Your task to perform on an android device: Go to network settings Image 0: 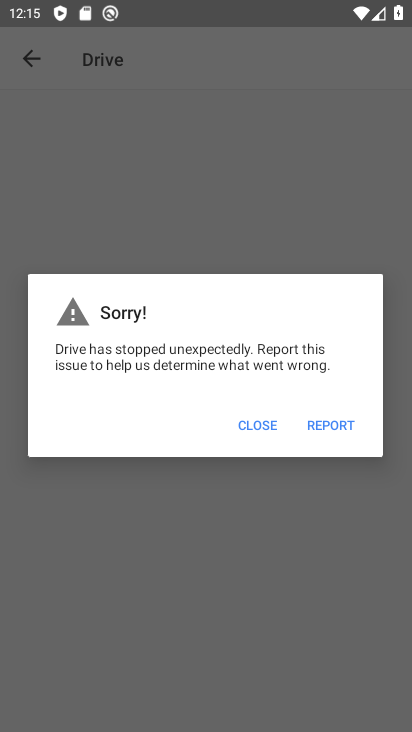
Step 0: press home button
Your task to perform on an android device: Go to network settings Image 1: 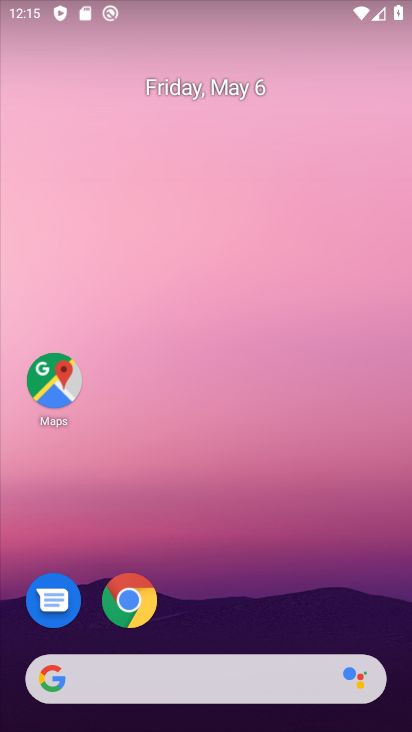
Step 1: drag from (302, 629) to (302, 67)
Your task to perform on an android device: Go to network settings Image 2: 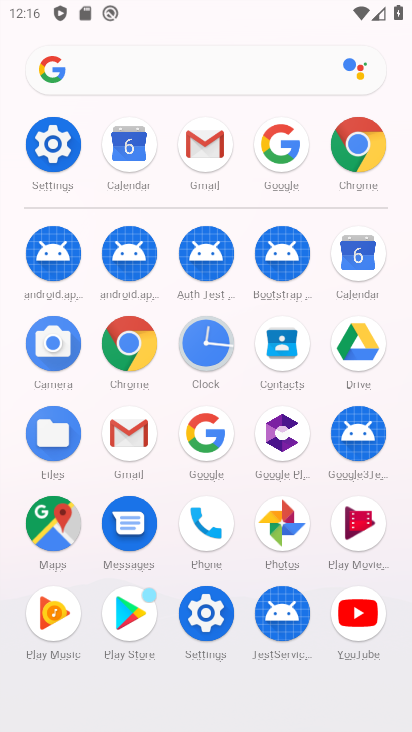
Step 2: click (216, 600)
Your task to perform on an android device: Go to network settings Image 3: 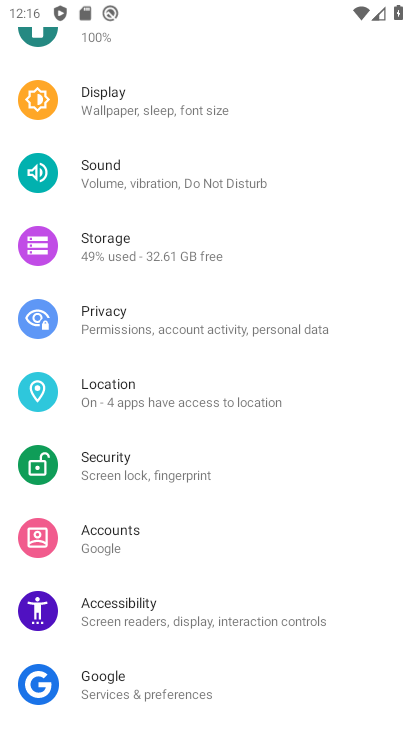
Step 3: drag from (188, 151) to (196, 530)
Your task to perform on an android device: Go to network settings Image 4: 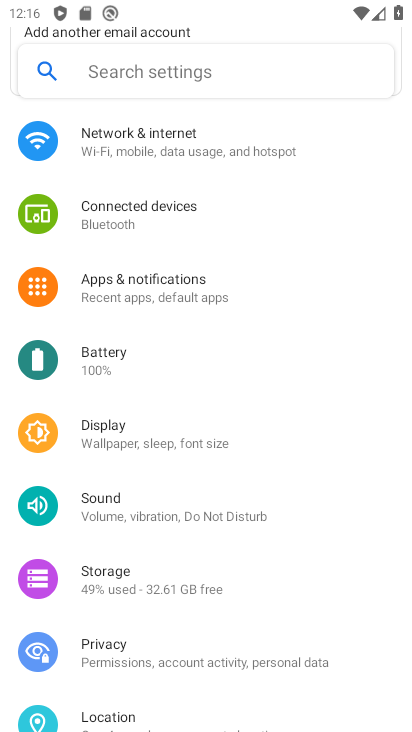
Step 4: click (194, 146)
Your task to perform on an android device: Go to network settings Image 5: 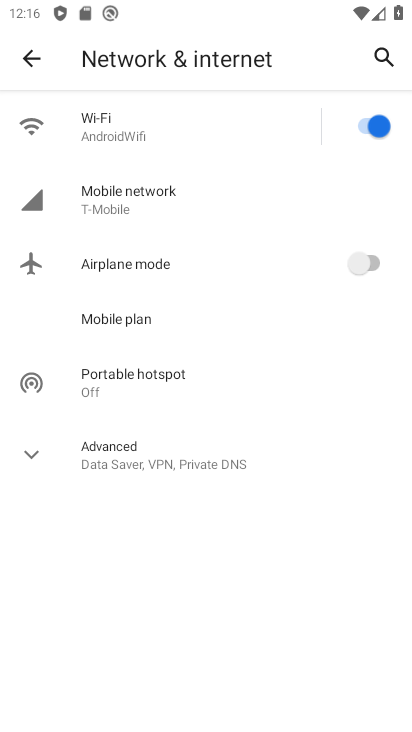
Step 5: task complete